Your task to perform on an android device: visit the assistant section in the google photos Image 0: 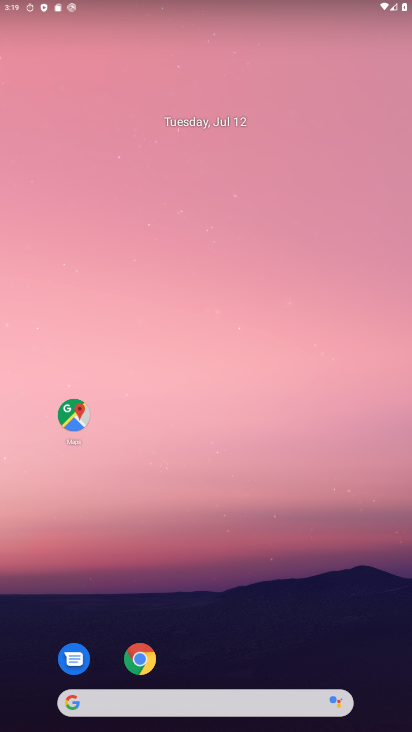
Step 0: drag from (344, 651) to (278, 114)
Your task to perform on an android device: visit the assistant section in the google photos Image 1: 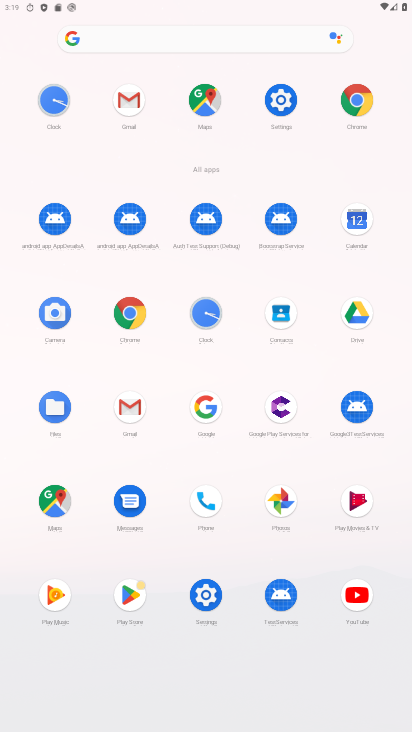
Step 1: click (286, 504)
Your task to perform on an android device: visit the assistant section in the google photos Image 2: 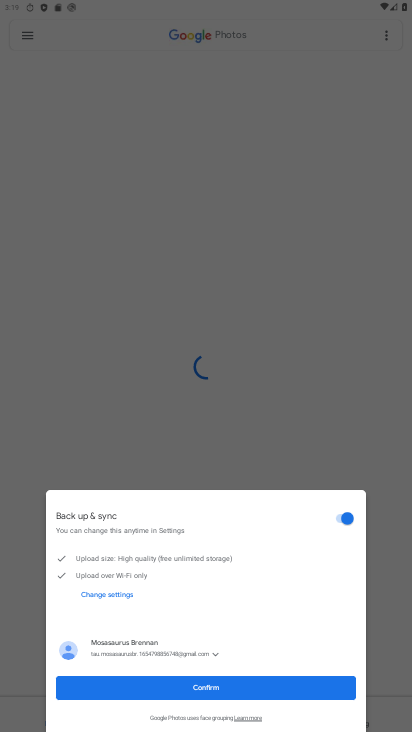
Step 2: click (272, 680)
Your task to perform on an android device: visit the assistant section in the google photos Image 3: 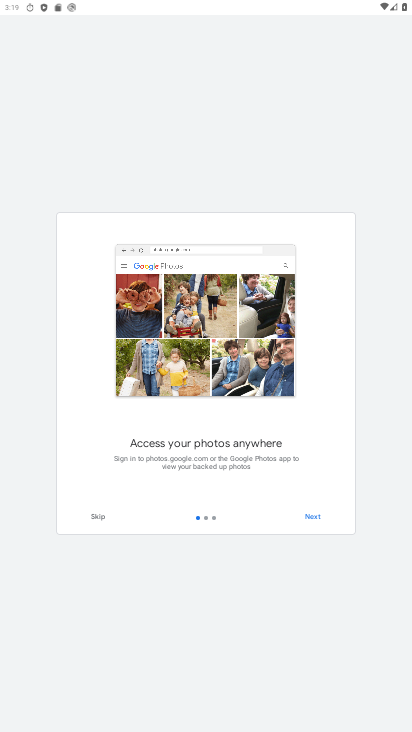
Step 3: click (98, 517)
Your task to perform on an android device: visit the assistant section in the google photos Image 4: 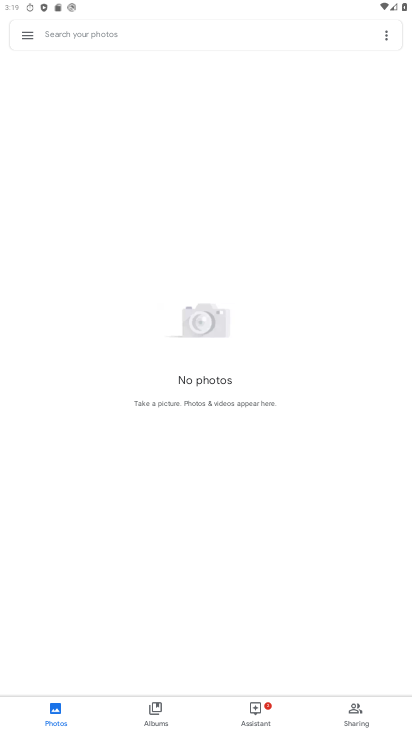
Step 4: click (271, 701)
Your task to perform on an android device: visit the assistant section in the google photos Image 5: 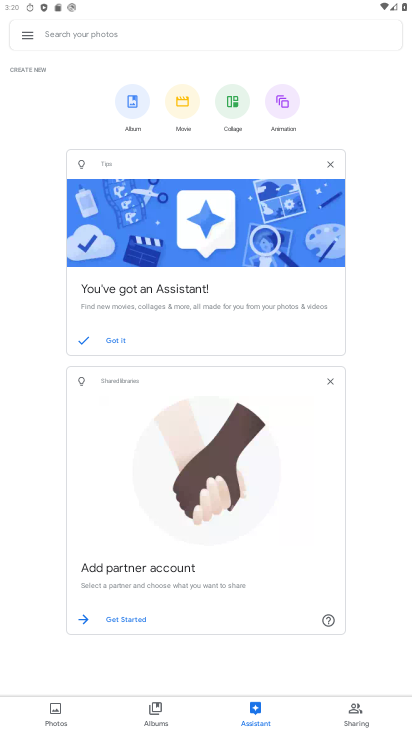
Step 5: task complete